Your task to perform on an android device: turn on notifications settings in the gmail app Image 0: 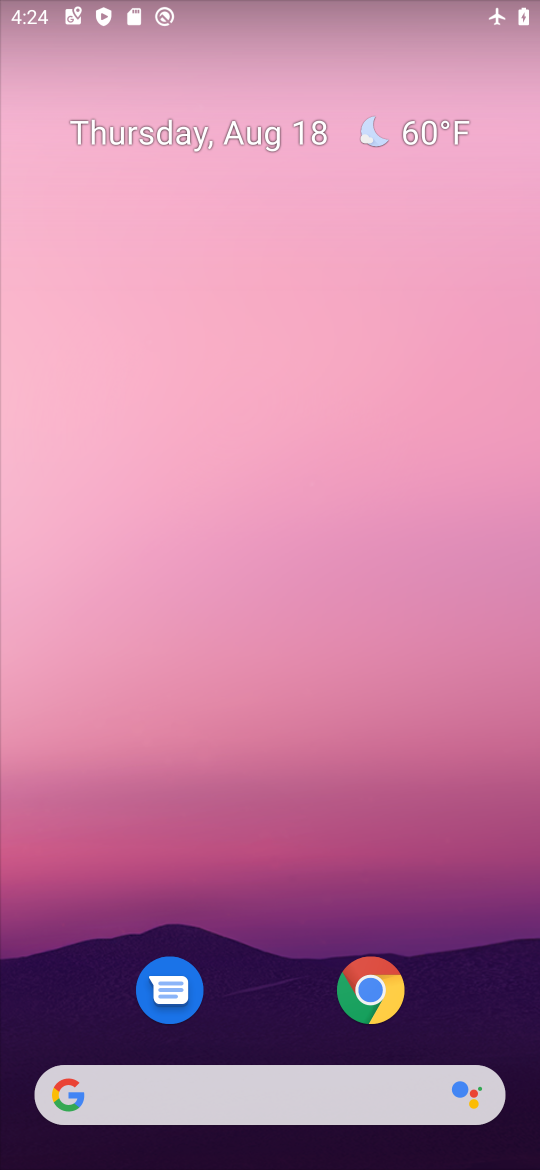
Step 0: drag from (259, 983) to (298, 30)
Your task to perform on an android device: turn on notifications settings in the gmail app Image 1: 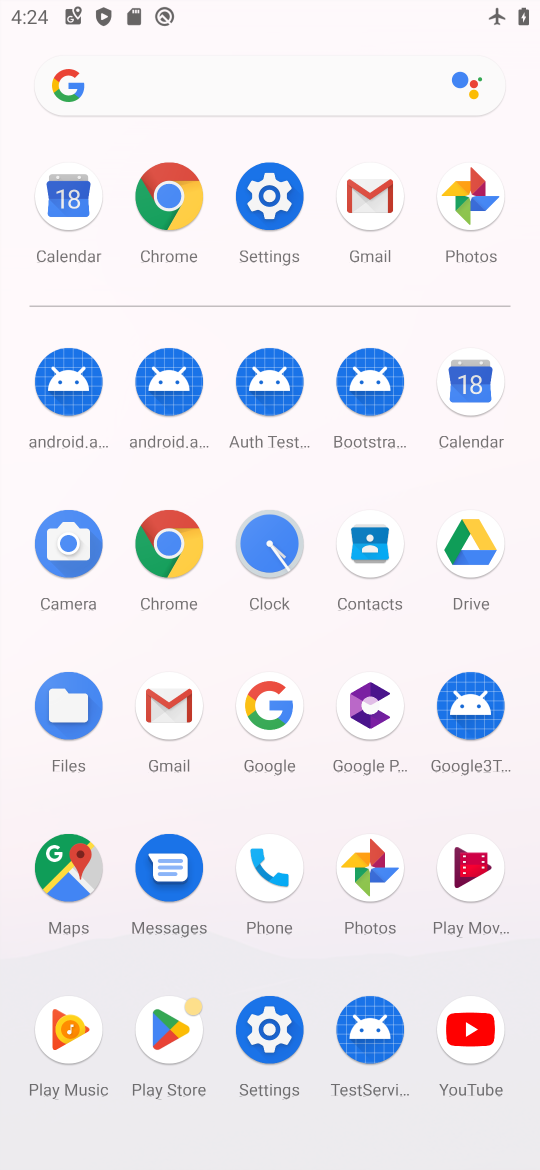
Step 1: click (178, 708)
Your task to perform on an android device: turn on notifications settings in the gmail app Image 2: 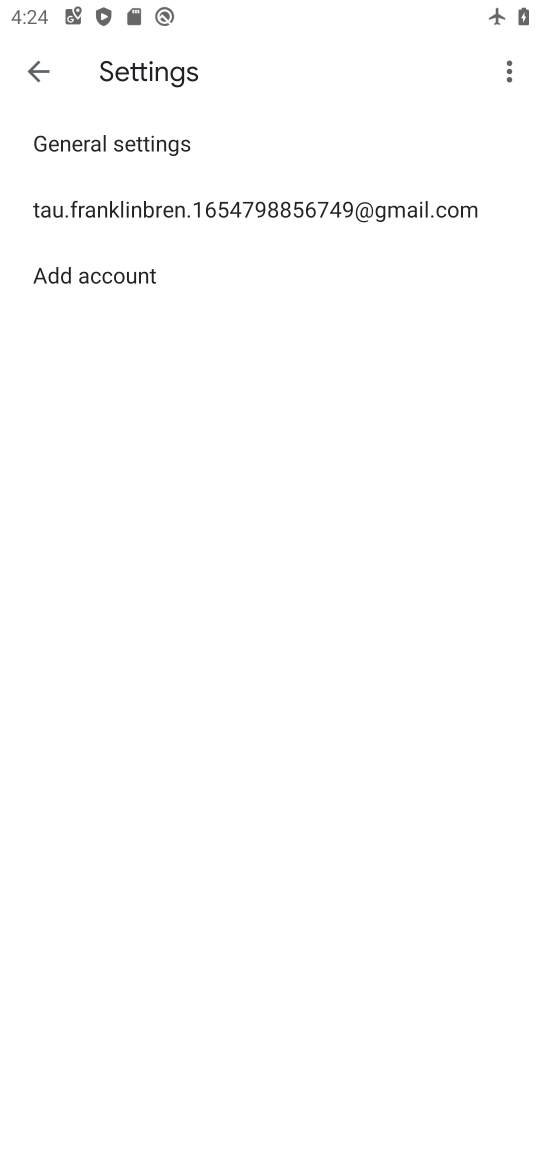
Step 2: click (305, 212)
Your task to perform on an android device: turn on notifications settings in the gmail app Image 3: 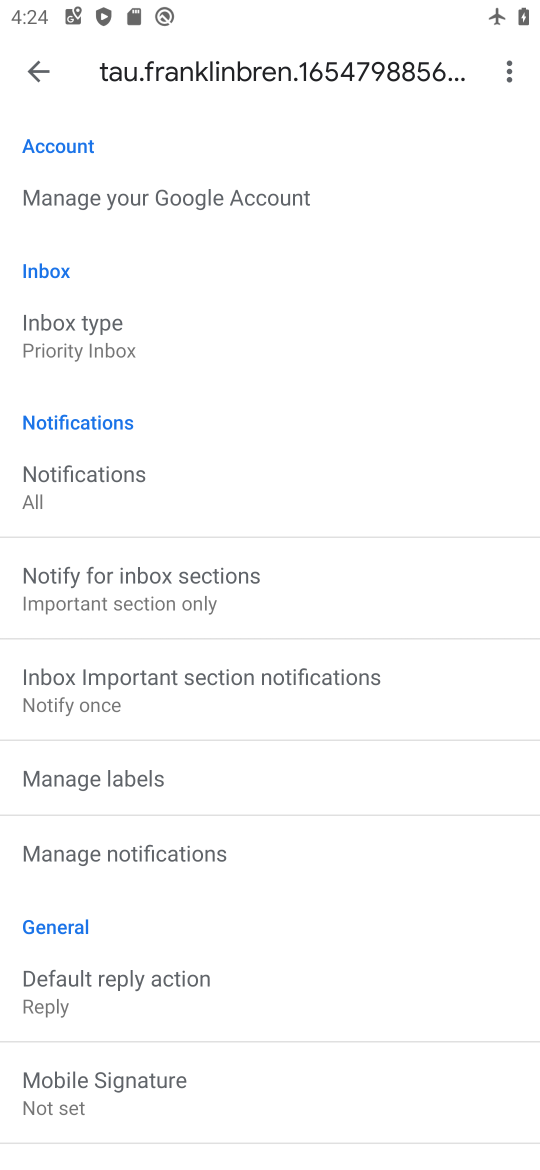
Step 3: click (173, 879)
Your task to perform on an android device: turn on notifications settings in the gmail app Image 4: 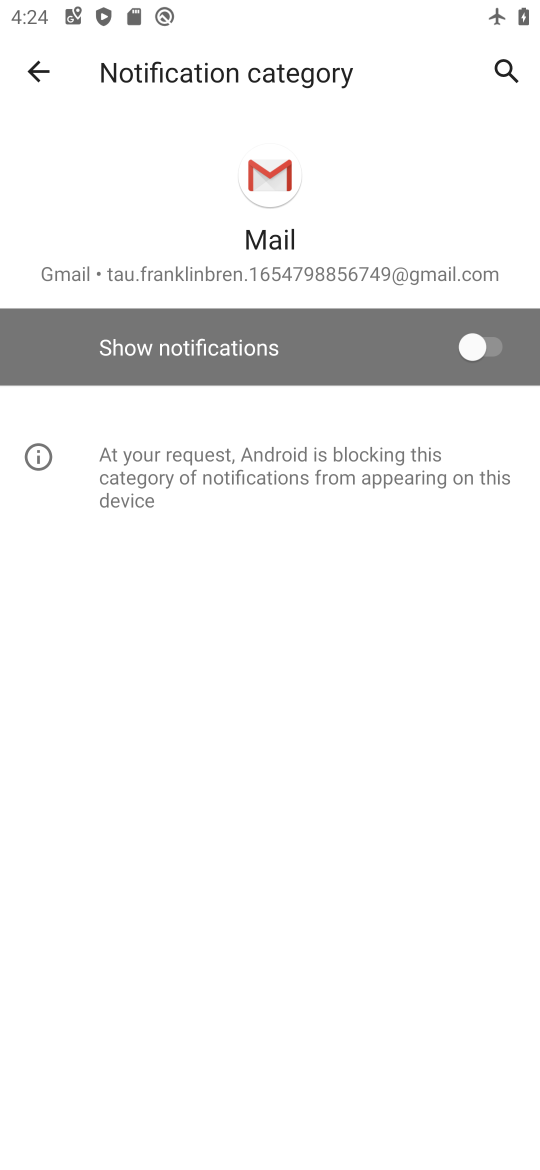
Step 4: click (464, 332)
Your task to perform on an android device: turn on notifications settings in the gmail app Image 5: 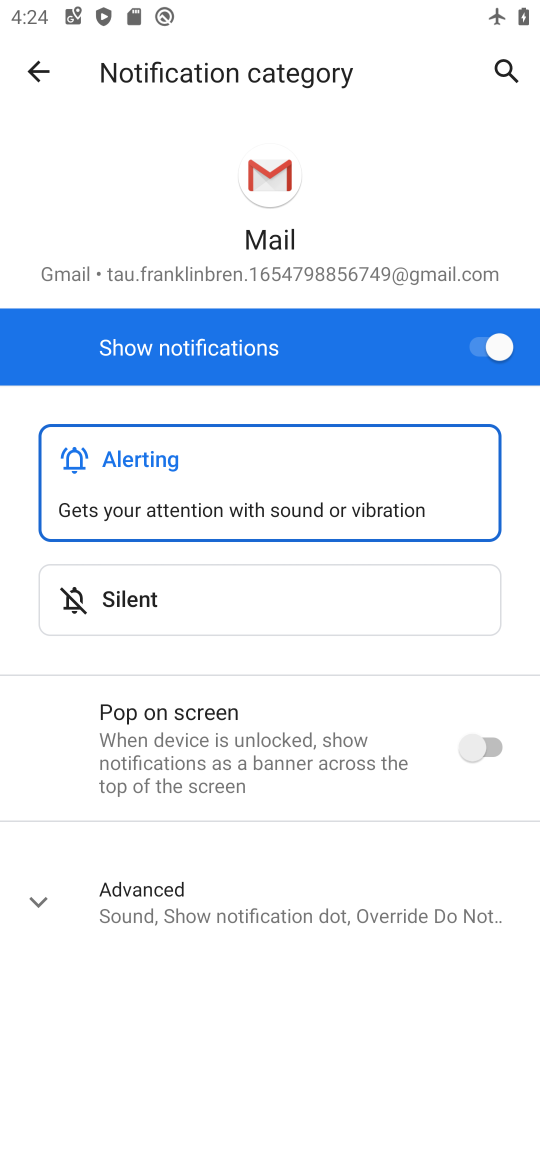
Step 5: task complete